Your task to perform on an android device: turn on improve location accuracy Image 0: 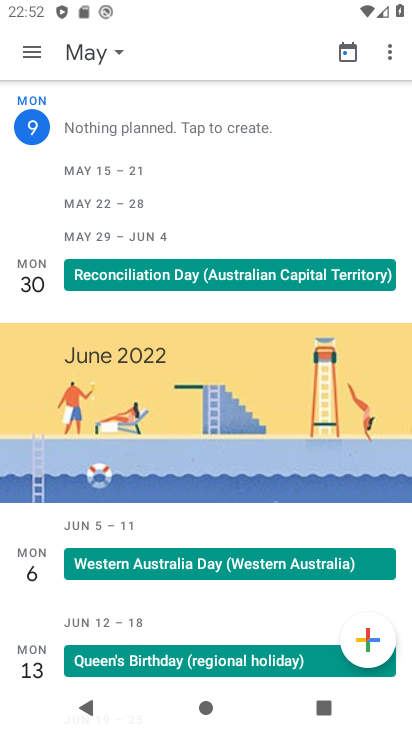
Step 0: press home button
Your task to perform on an android device: turn on improve location accuracy Image 1: 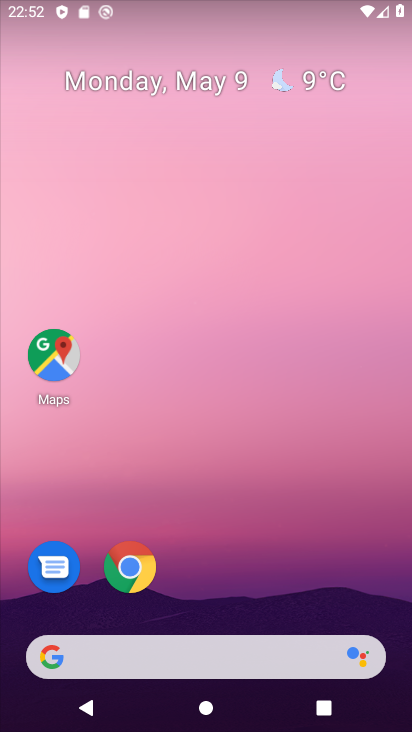
Step 1: drag from (242, 536) to (211, 75)
Your task to perform on an android device: turn on improve location accuracy Image 2: 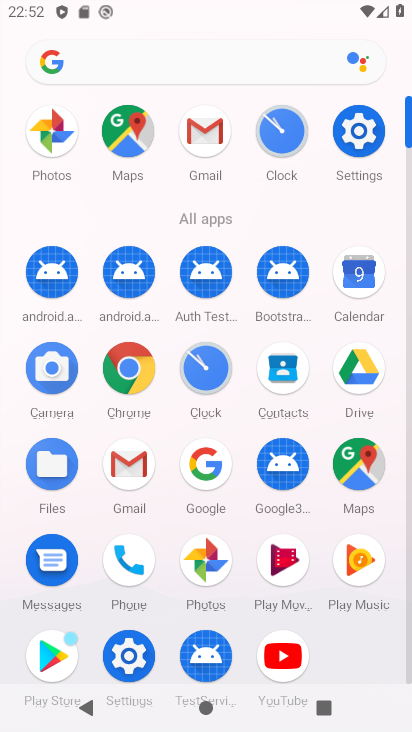
Step 2: click (359, 130)
Your task to perform on an android device: turn on improve location accuracy Image 3: 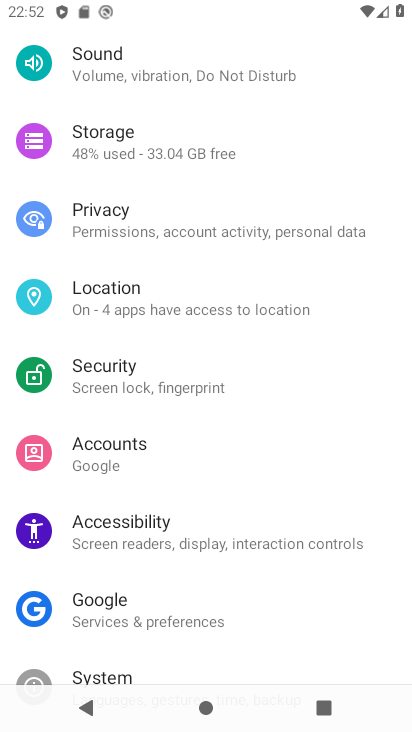
Step 3: drag from (163, 348) to (196, 433)
Your task to perform on an android device: turn on improve location accuracy Image 4: 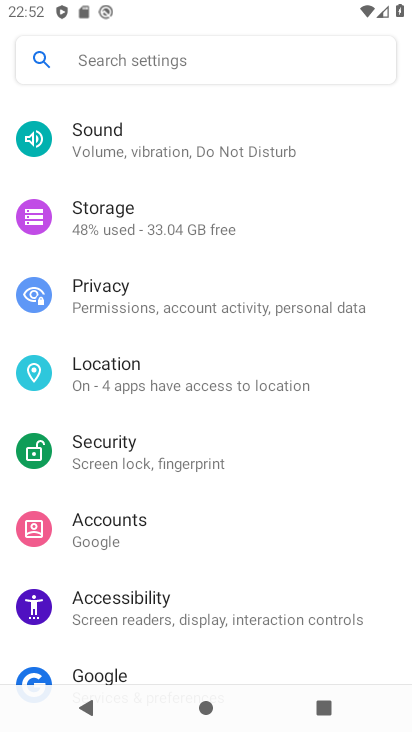
Step 4: click (117, 372)
Your task to perform on an android device: turn on improve location accuracy Image 5: 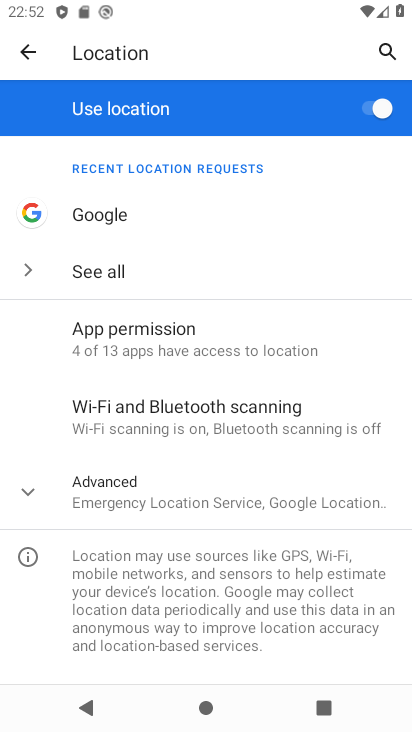
Step 5: click (111, 484)
Your task to perform on an android device: turn on improve location accuracy Image 6: 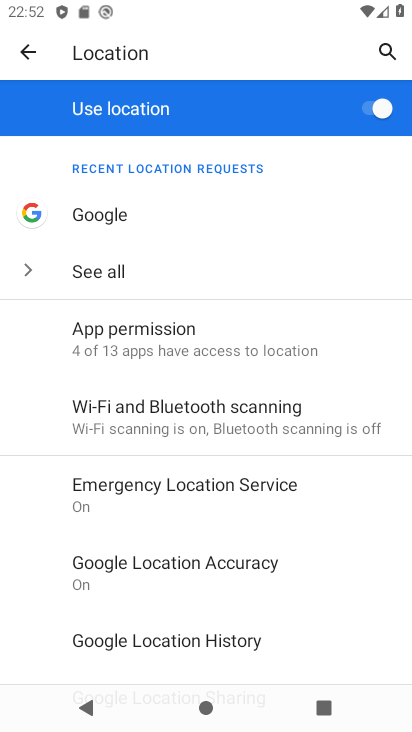
Step 6: click (161, 558)
Your task to perform on an android device: turn on improve location accuracy Image 7: 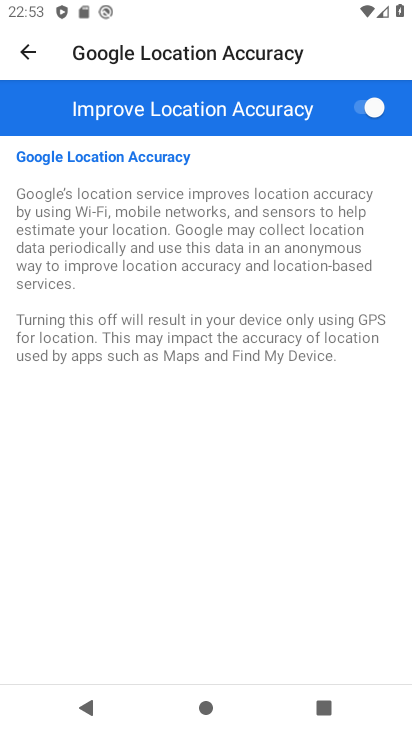
Step 7: task complete